Your task to perform on an android device: change timer sound Image 0: 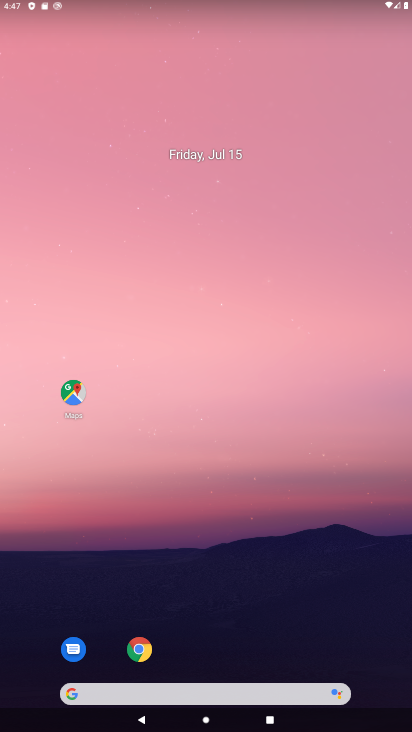
Step 0: drag from (206, 689) to (231, 197)
Your task to perform on an android device: change timer sound Image 1: 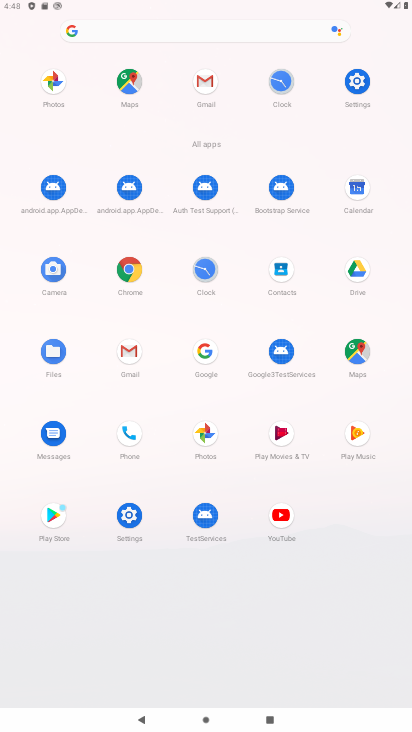
Step 1: click (205, 269)
Your task to perform on an android device: change timer sound Image 2: 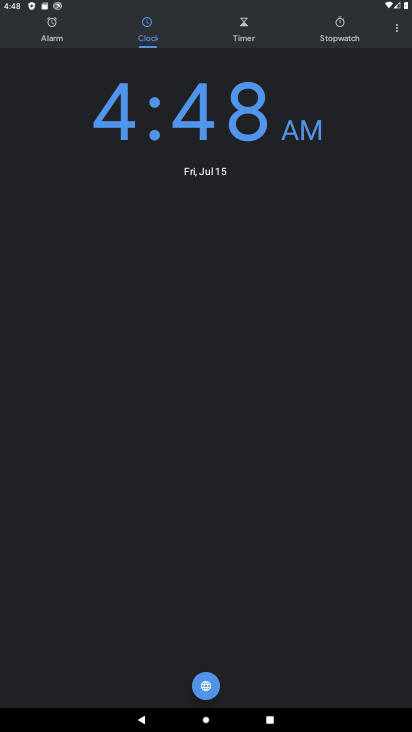
Step 2: click (399, 32)
Your task to perform on an android device: change timer sound Image 3: 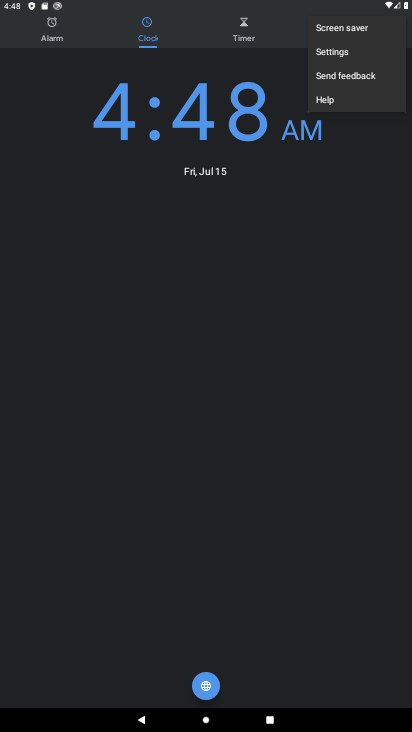
Step 3: click (348, 51)
Your task to perform on an android device: change timer sound Image 4: 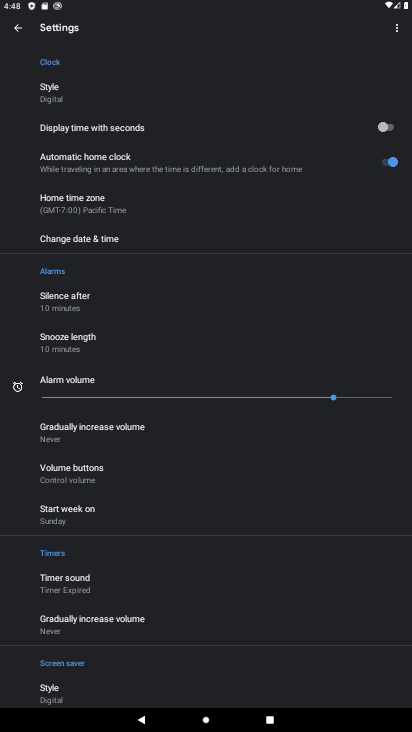
Step 4: click (92, 585)
Your task to perform on an android device: change timer sound Image 5: 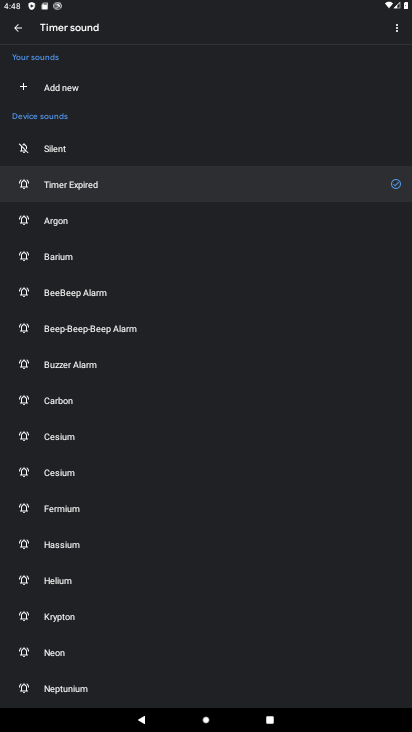
Step 5: click (72, 474)
Your task to perform on an android device: change timer sound Image 6: 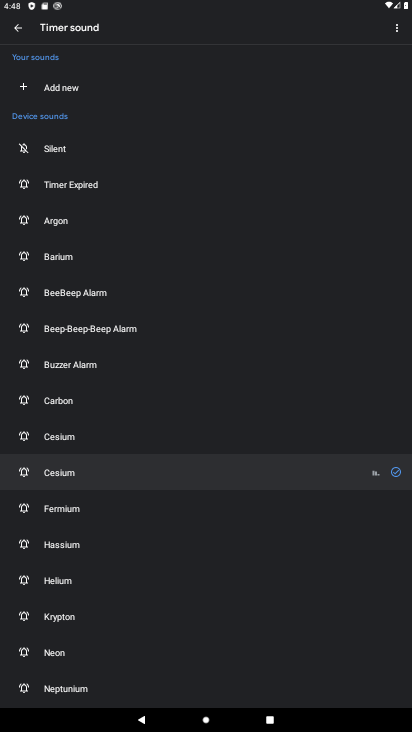
Step 6: task complete